Your task to perform on an android device: Open the calendar and show me this week's events? Image 0: 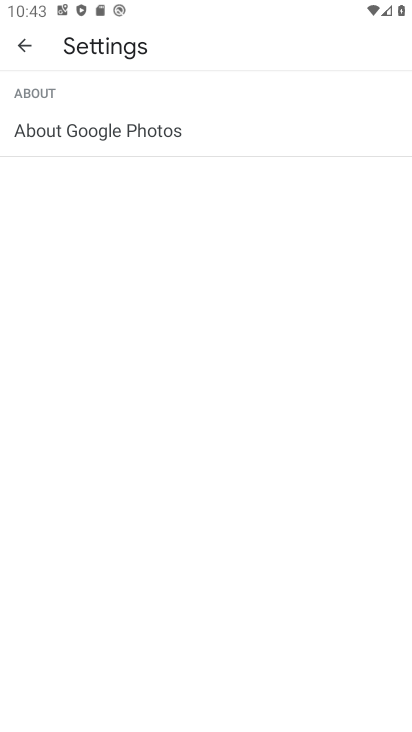
Step 0: press home button
Your task to perform on an android device: Open the calendar and show me this week's events? Image 1: 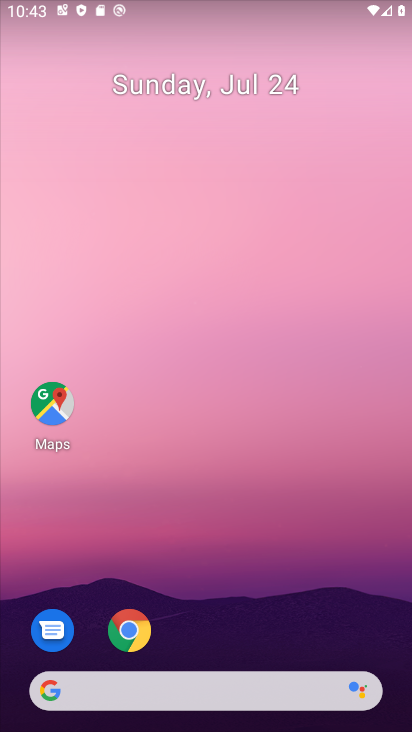
Step 1: drag from (250, 622) to (250, 87)
Your task to perform on an android device: Open the calendar and show me this week's events? Image 2: 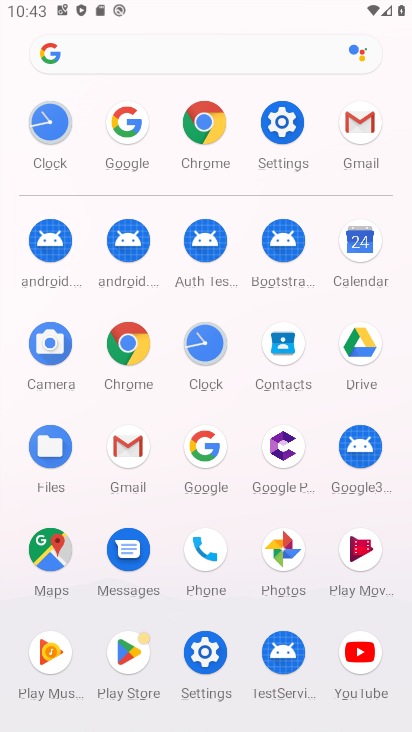
Step 2: click (356, 249)
Your task to perform on an android device: Open the calendar and show me this week's events? Image 3: 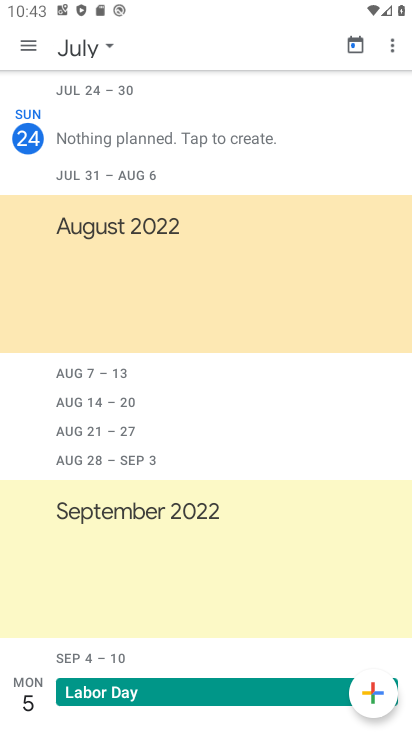
Step 3: click (111, 44)
Your task to perform on an android device: Open the calendar and show me this week's events? Image 4: 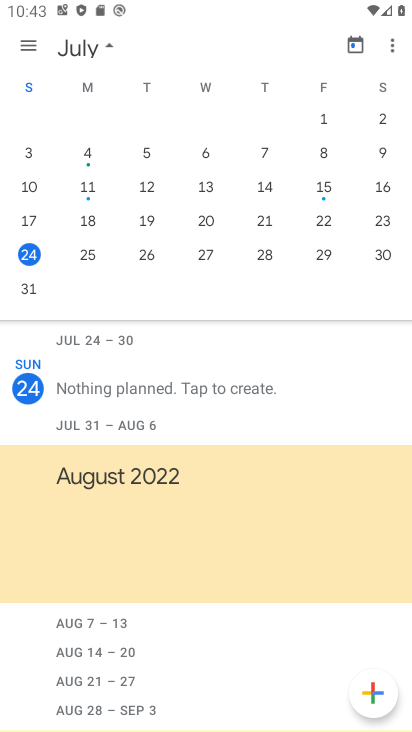
Step 4: click (95, 252)
Your task to perform on an android device: Open the calendar and show me this week's events? Image 5: 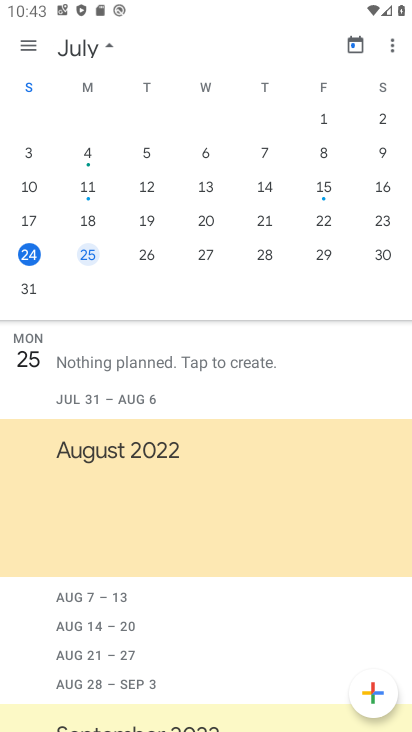
Step 5: click (132, 253)
Your task to perform on an android device: Open the calendar and show me this week's events? Image 6: 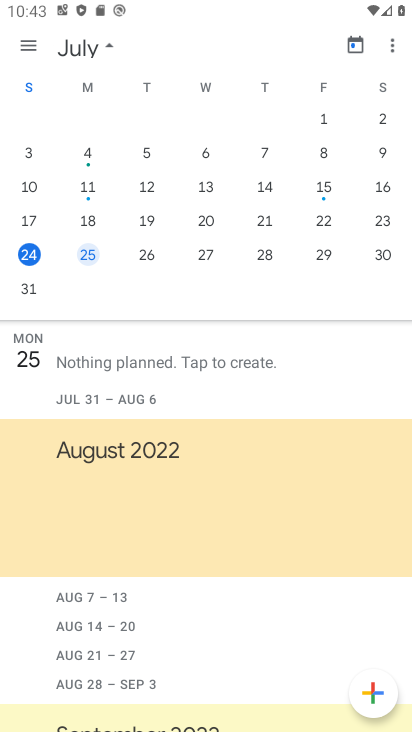
Step 6: click (154, 253)
Your task to perform on an android device: Open the calendar and show me this week's events? Image 7: 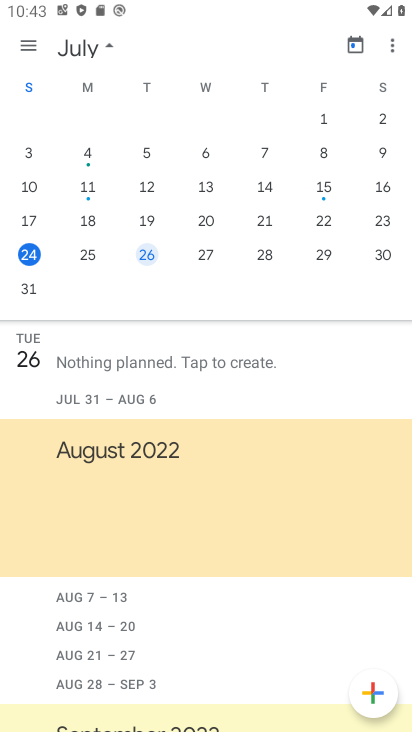
Step 7: task complete